Your task to perform on an android device: Open internet settings Image 0: 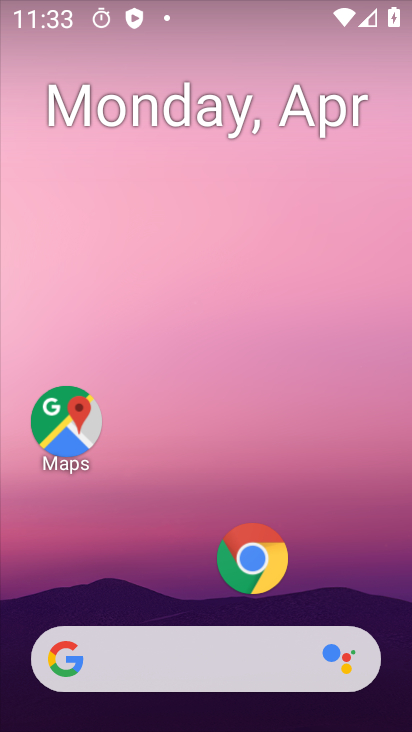
Step 0: click (192, 618)
Your task to perform on an android device: Open internet settings Image 1: 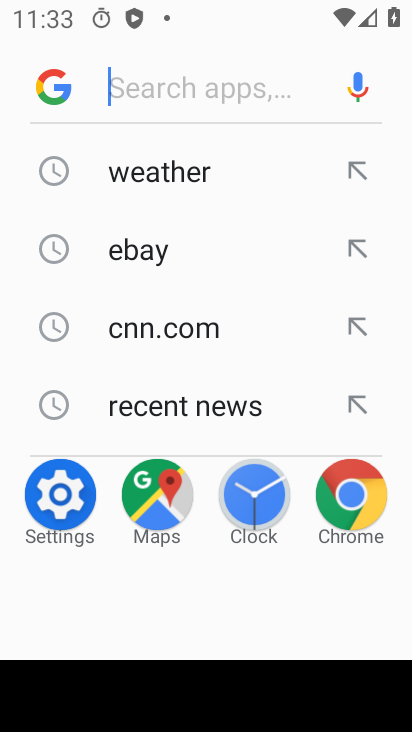
Step 1: press back button
Your task to perform on an android device: Open internet settings Image 2: 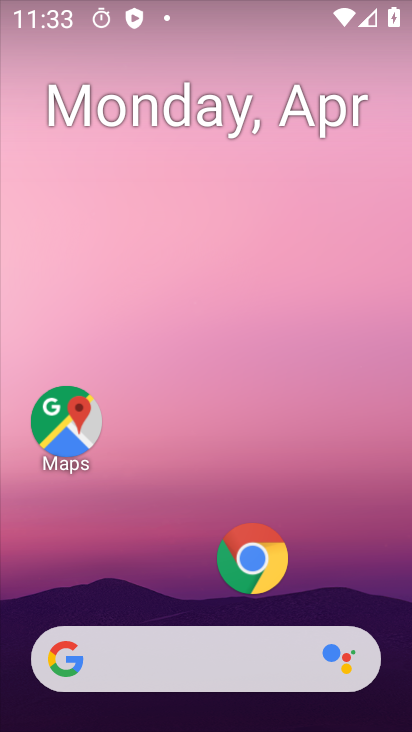
Step 2: drag from (195, 614) to (195, 219)
Your task to perform on an android device: Open internet settings Image 3: 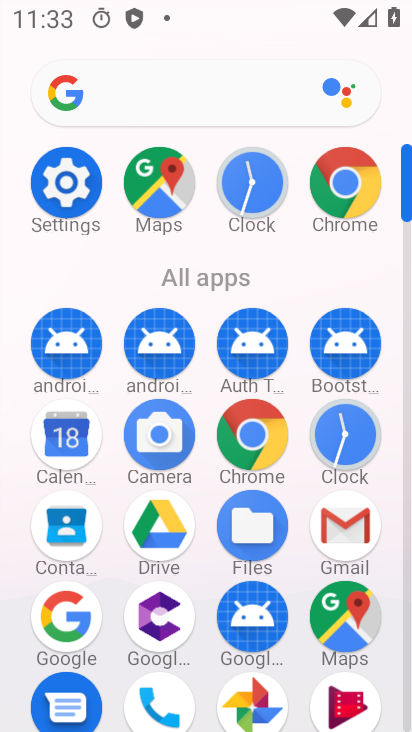
Step 3: click (15, 445)
Your task to perform on an android device: Open internet settings Image 4: 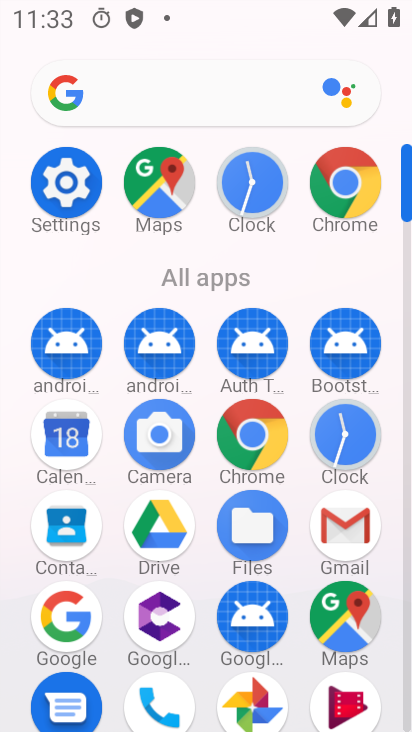
Step 4: drag from (283, 650) to (314, 266)
Your task to perform on an android device: Open internet settings Image 5: 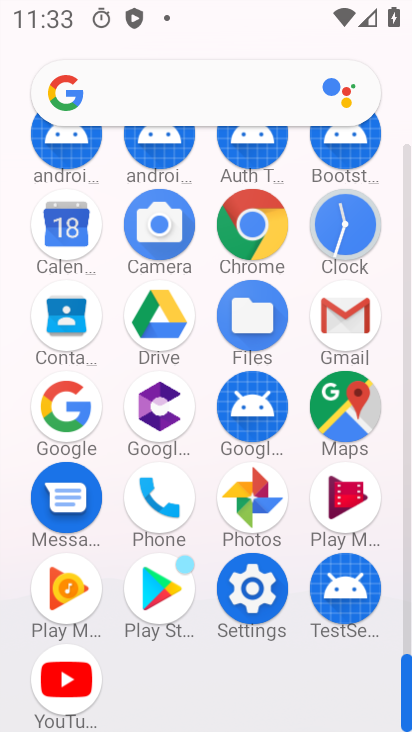
Step 5: click (241, 584)
Your task to perform on an android device: Open internet settings Image 6: 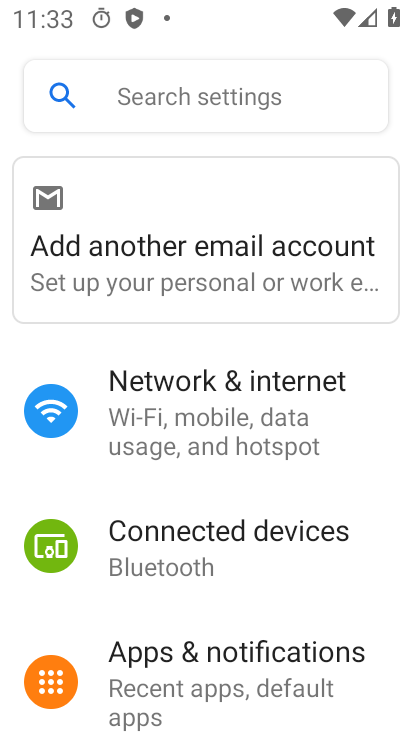
Step 6: click (230, 417)
Your task to perform on an android device: Open internet settings Image 7: 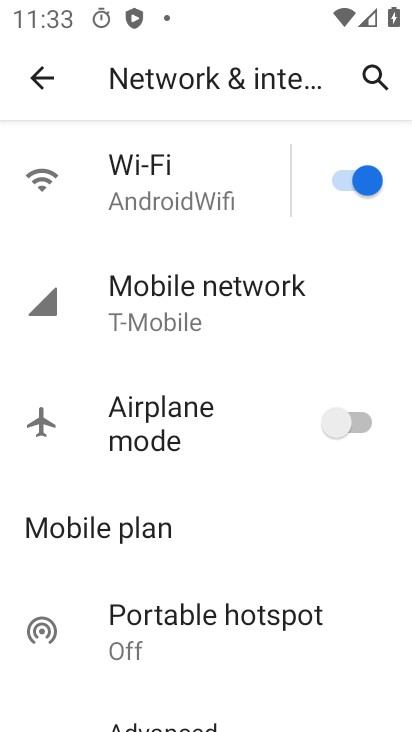
Step 7: click (224, 309)
Your task to perform on an android device: Open internet settings Image 8: 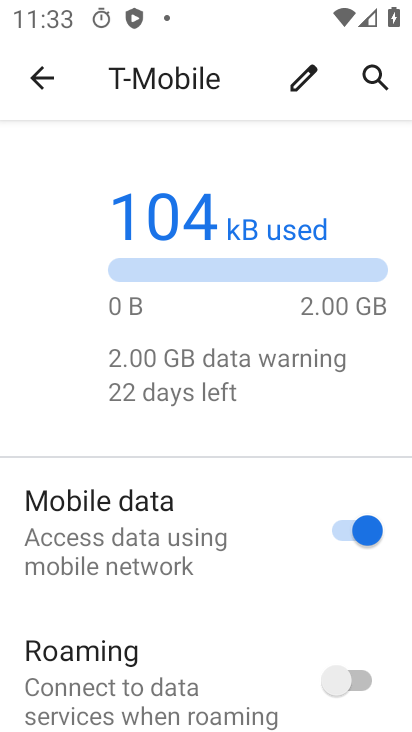
Step 8: task complete